Your task to perform on an android device: Is it going to rain today? Image 0: 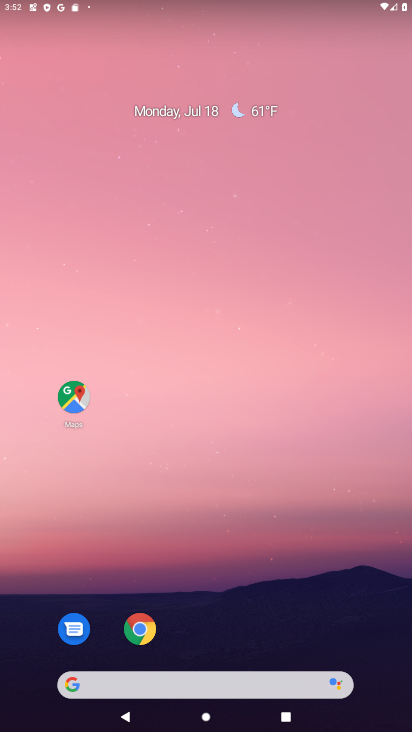
Step 0: drag from (264, 657) to (267, 149)
Your task to perform on an android device: Is it going to rain today? Image 1: 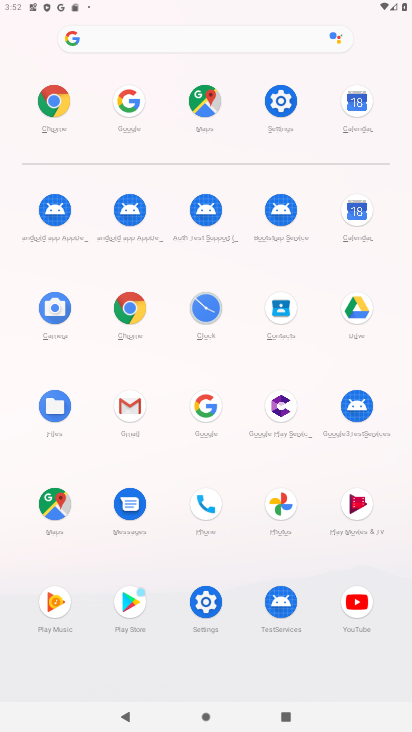
Step 1: click (195, 402)
Your task to perform on an android device: Is it going to rain today? Image 2: 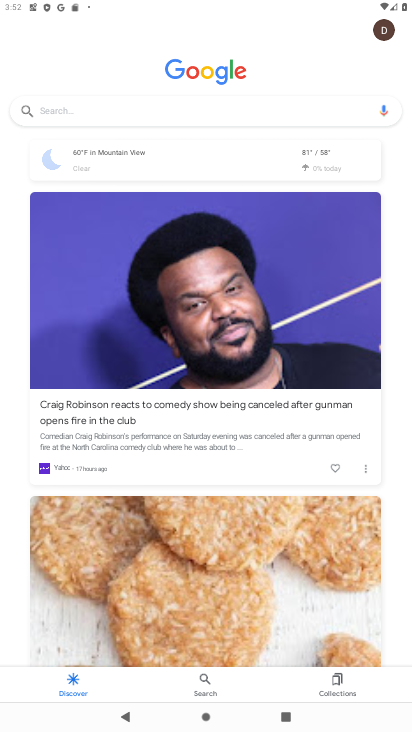
Step 2: click (86, 111)
Your task to perform on an android device: Is it going to rain today? Image 3: 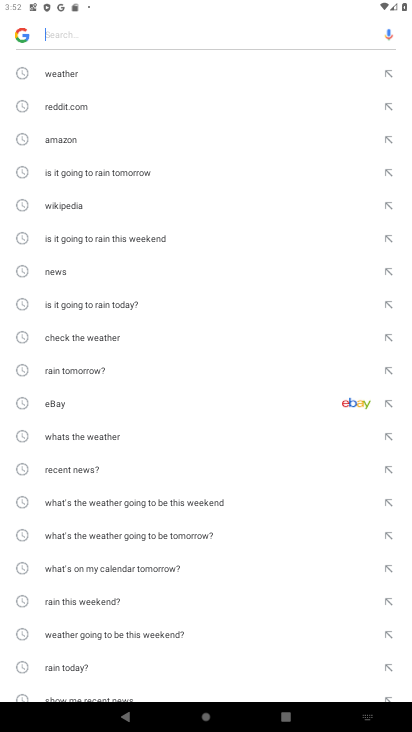
Step 3: click (101, 306)
Your task to perform on an android device: Is it going to rain today? Image 4: 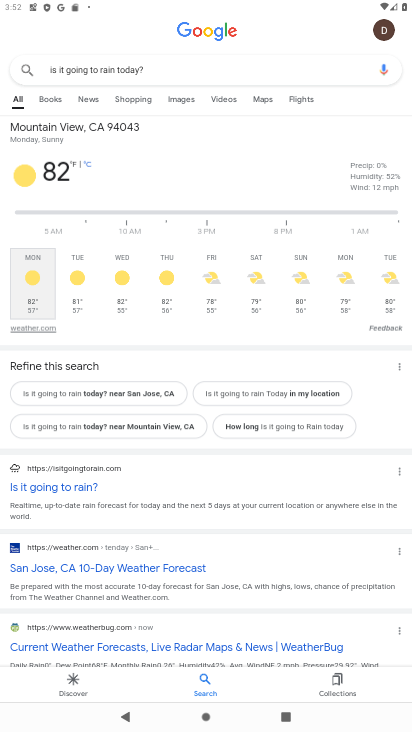
Step 4: task complete